Your task to perform on an android device: uninstall "Pandora - Music & Podcasts" Image 0: 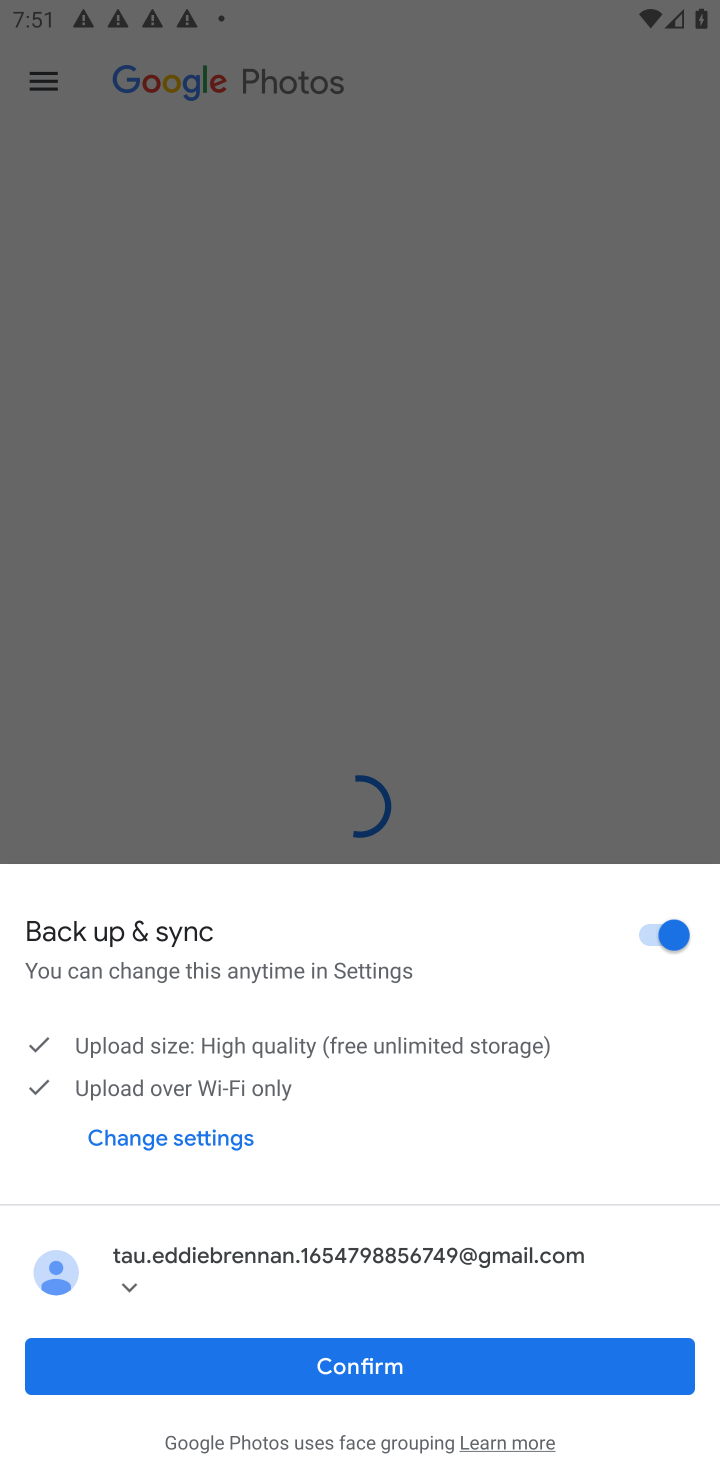
Step 0: press home button
Your task to perform on an android device: uninstall "Pandora - Music & Podcasts" Image 1: 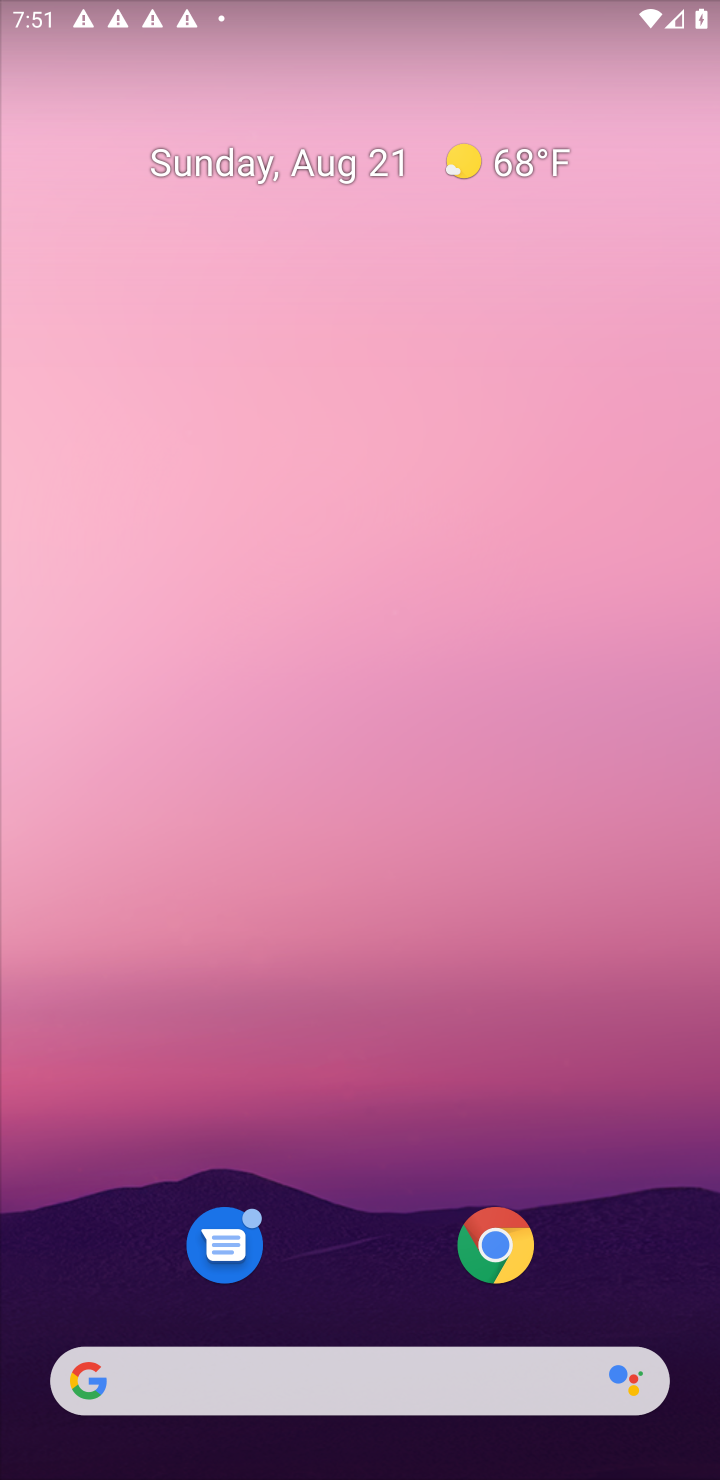
Step 1: drag from (301, 1326) to (286, 291)
Your task to perform on an android device: uninstall "Pandora - Music & Podcasts" Image 2: 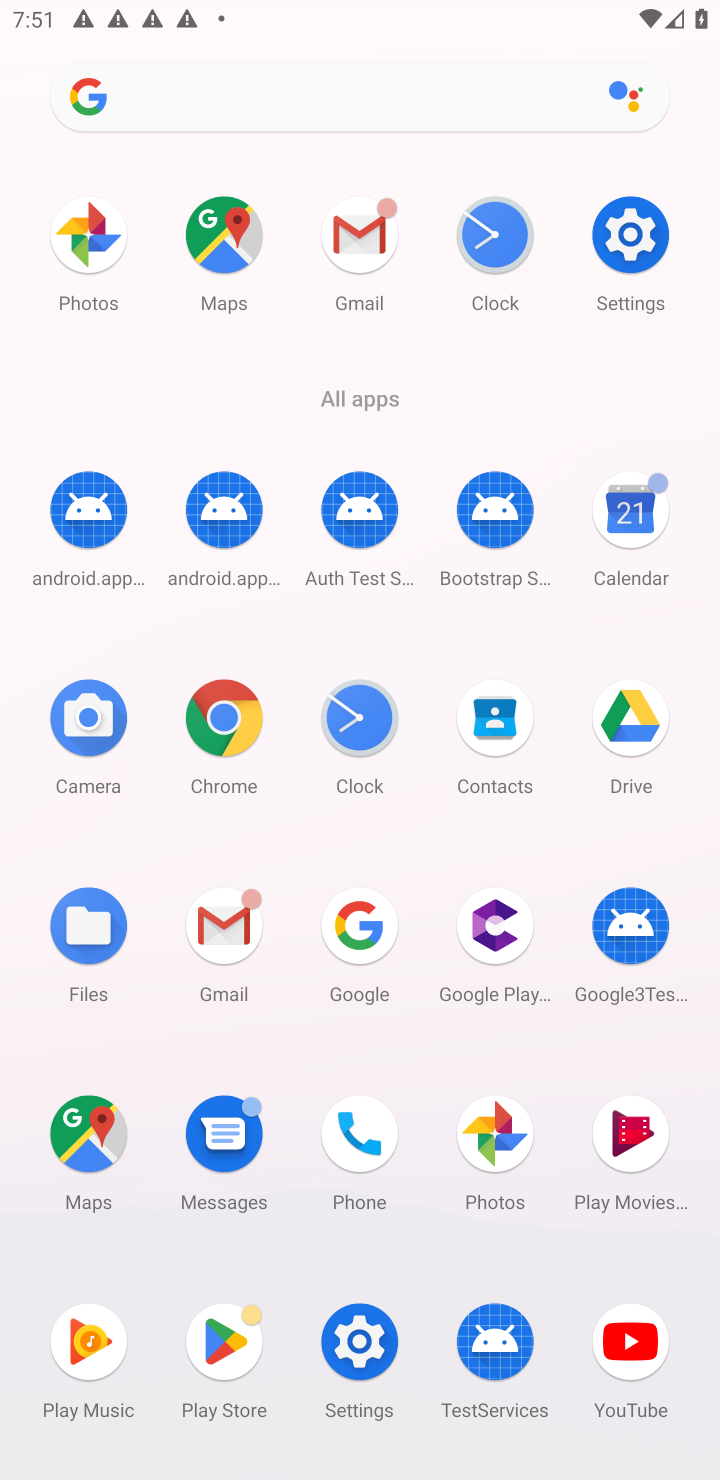
Step 2: click (253, 1358)
Your task to perform on an android device: uninstall "Pandora - Music & Podcasts" Image 3: 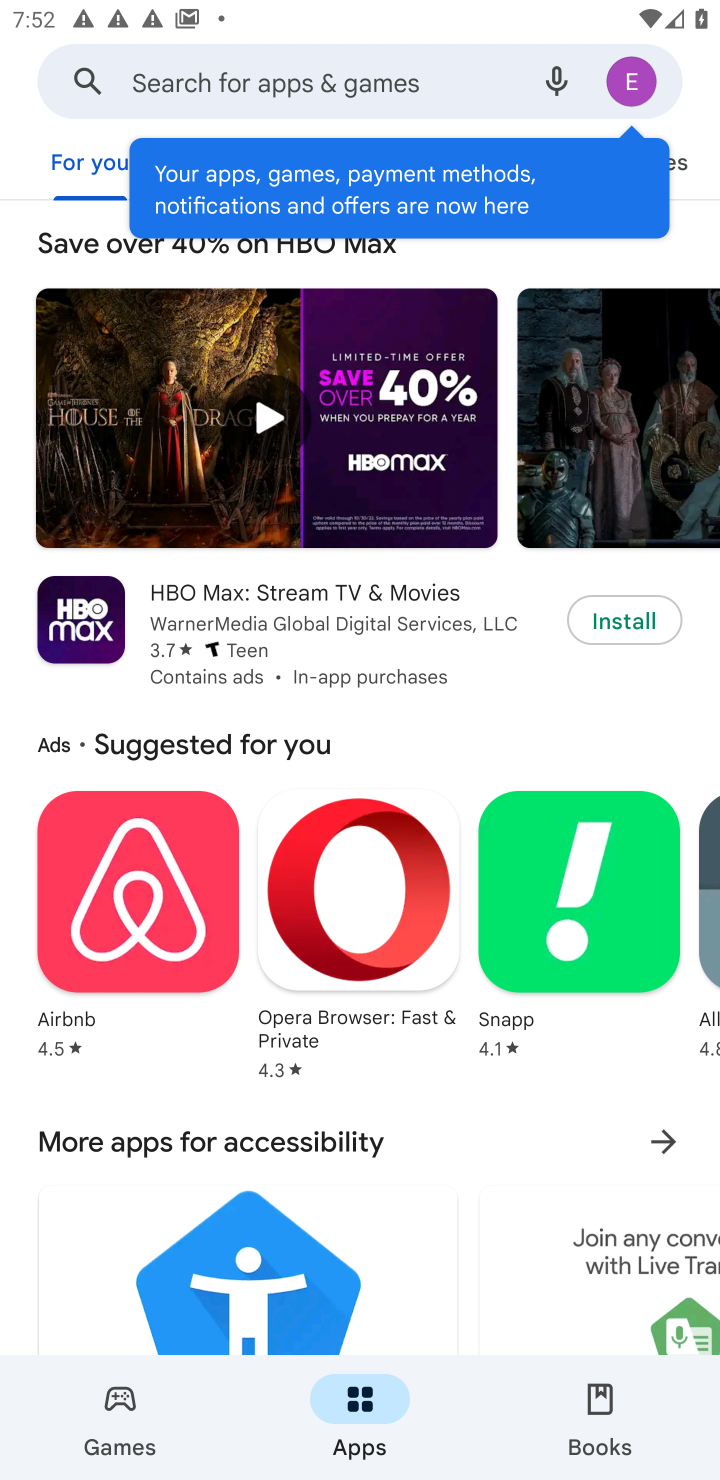
Step 3: click (203, 85)
Your task to perform on an android device: uninstall "Pandora - Music & Podcasts" Image 4: 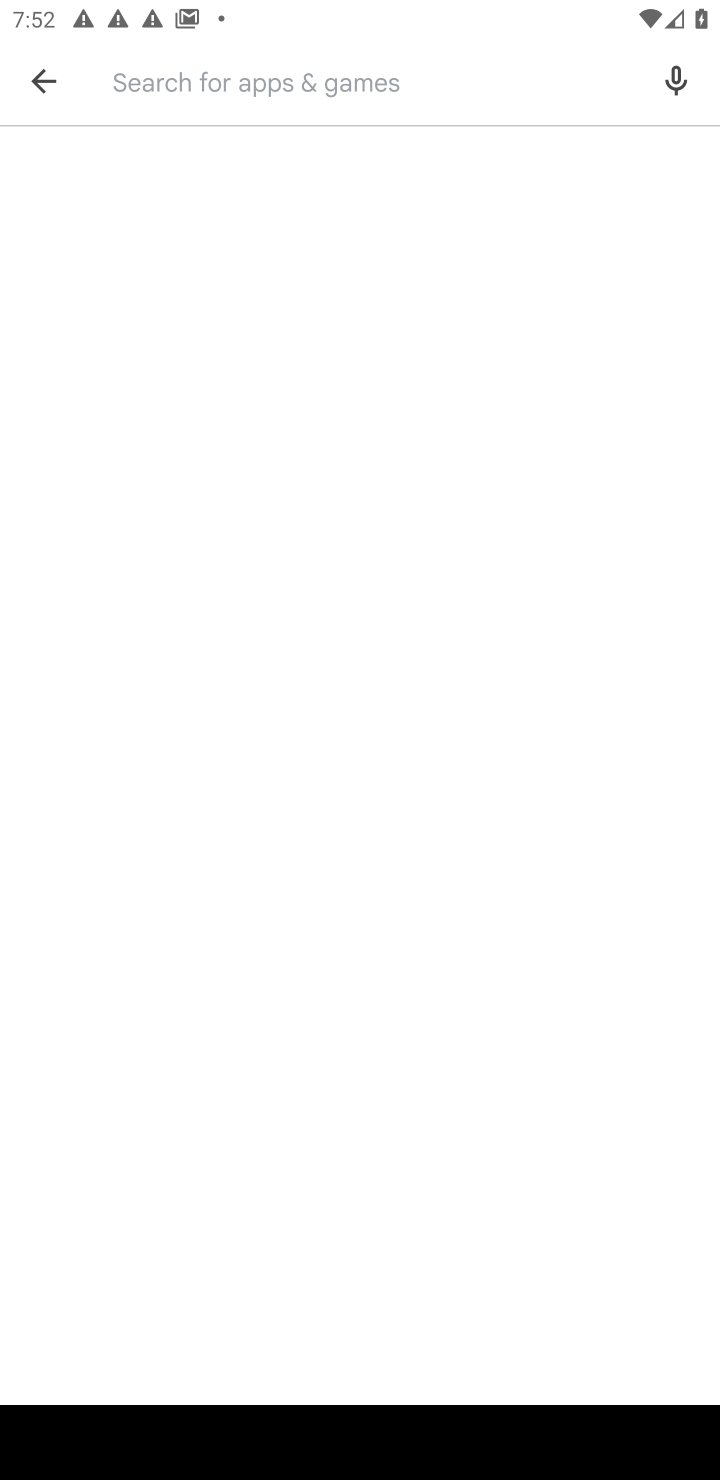
Step 4: click (194, 83)
Your task to perform on an android device: uninstall "Pandora - Music & Podcasts" Image 5: 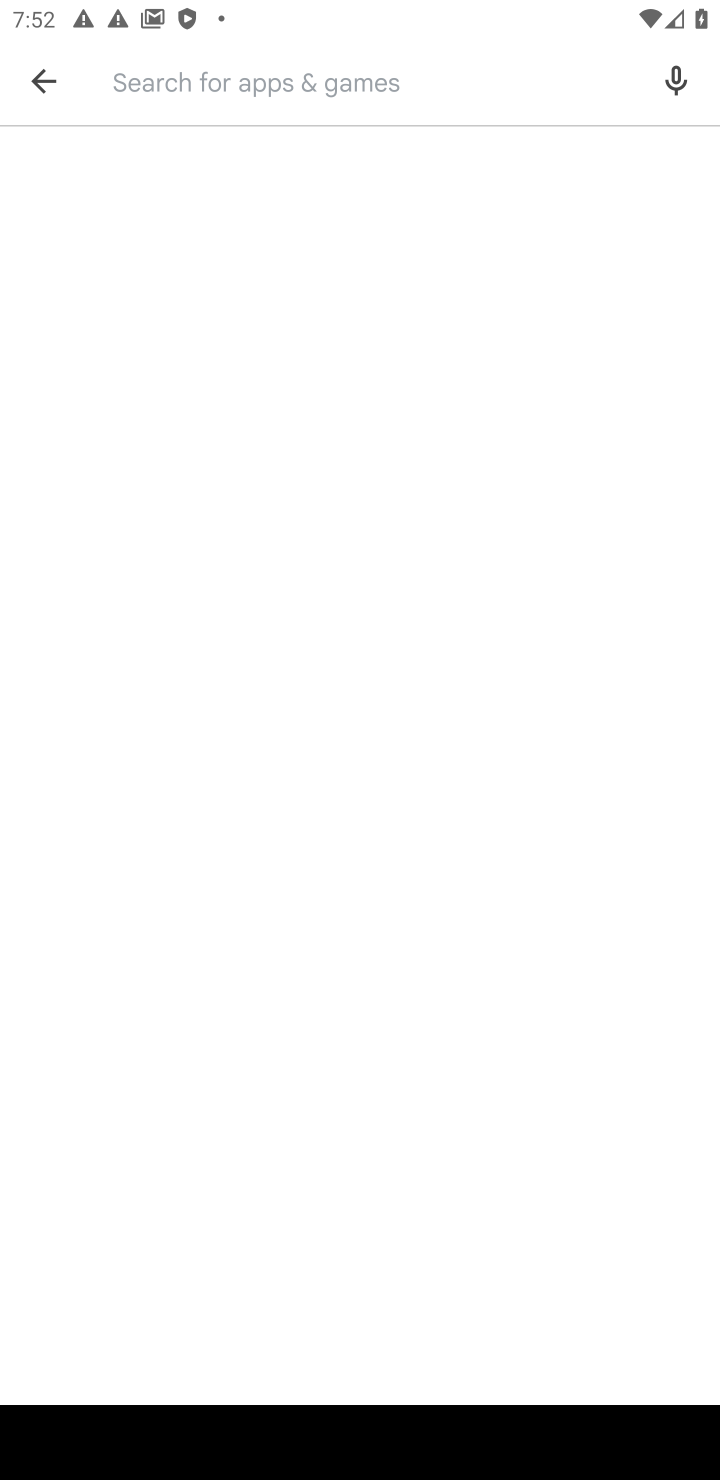
Step 5: type "Pandora - Music & Podcasts"
Your task to perform on an android device: uninstall "Pandora - Music & Podcasts" Image 6: 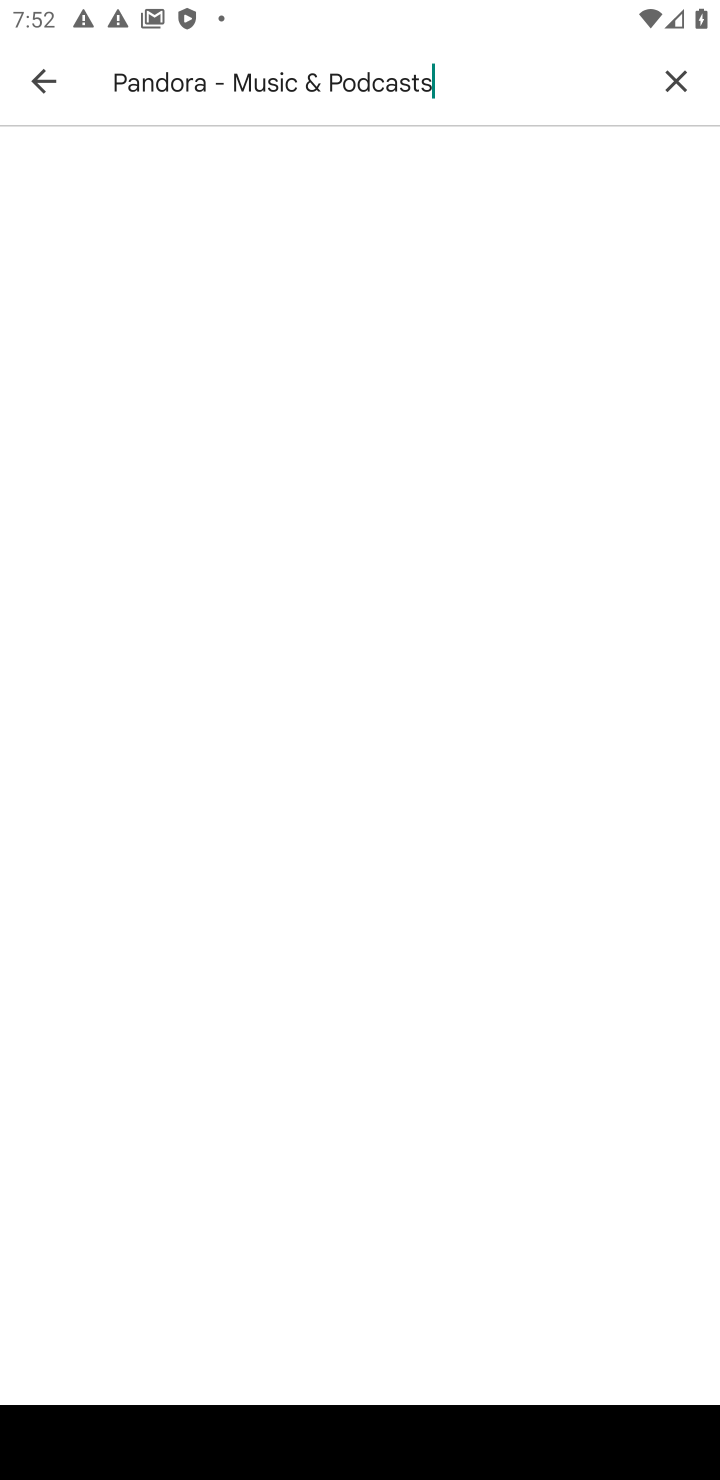
Step 6: type ""
Your task to perform on an android device: uninstall "Pandora - Music & Podcasts" Image 7: 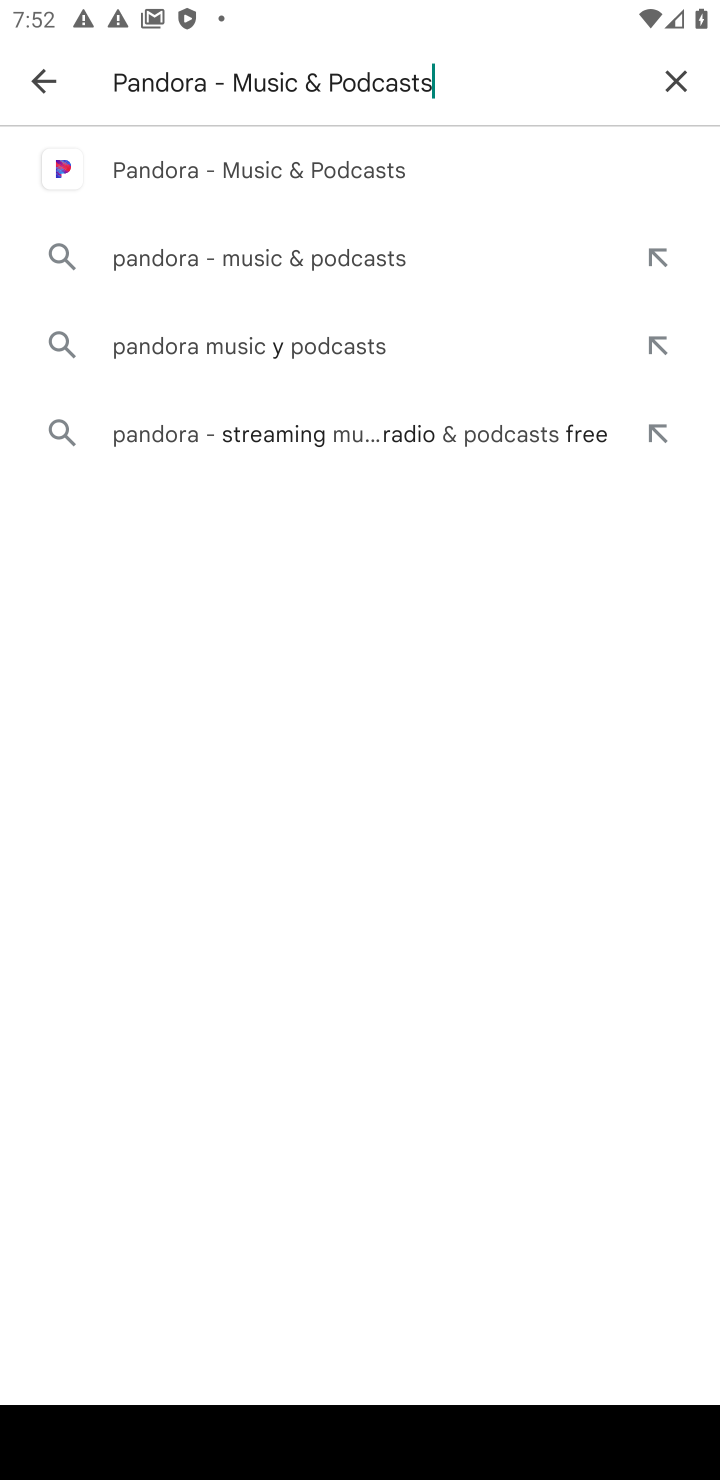
Step 7: click (166, 153)
Your task to perform on an android device: uninstall "Pandora - Music & Podcasts" Image 8: 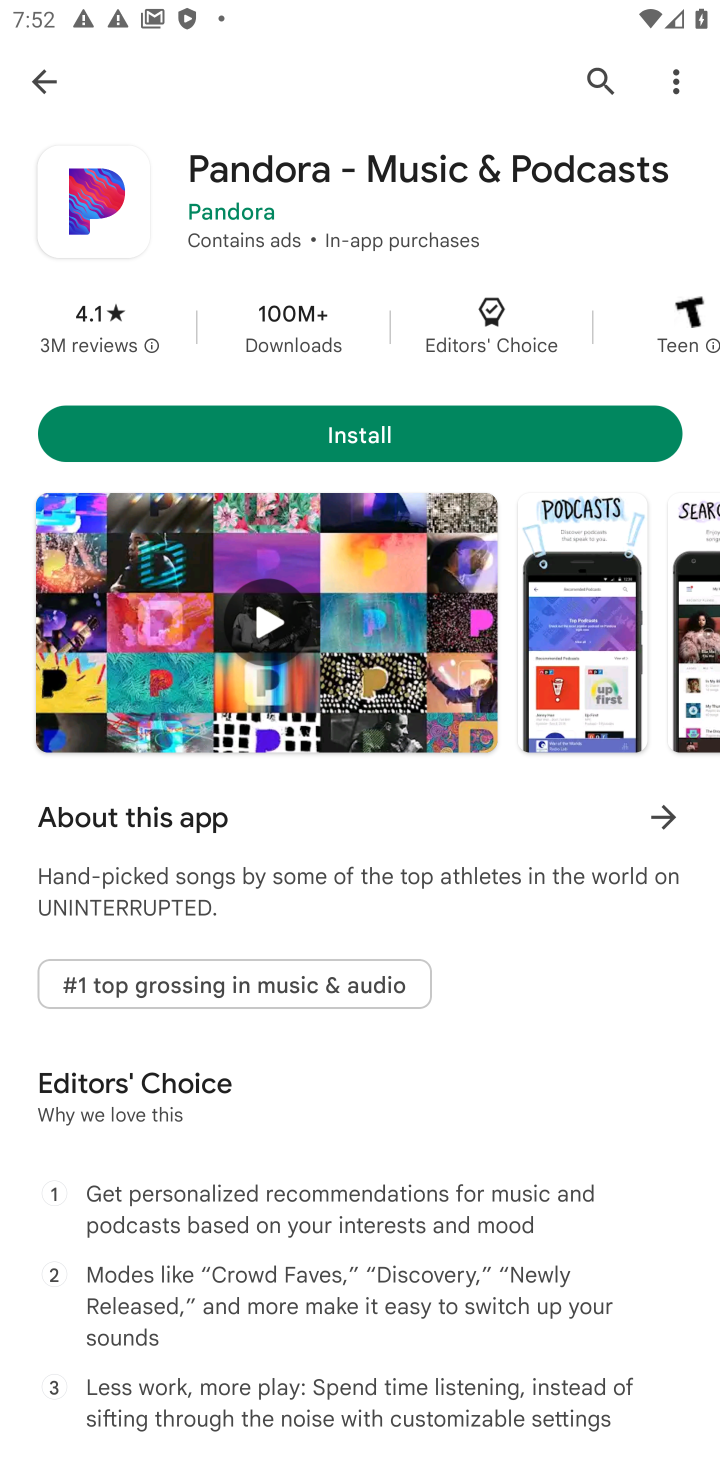
Step 8: task complete